Your task to perform on an android device: Open the Play Movies app and select the watchlist tab. Image 0: 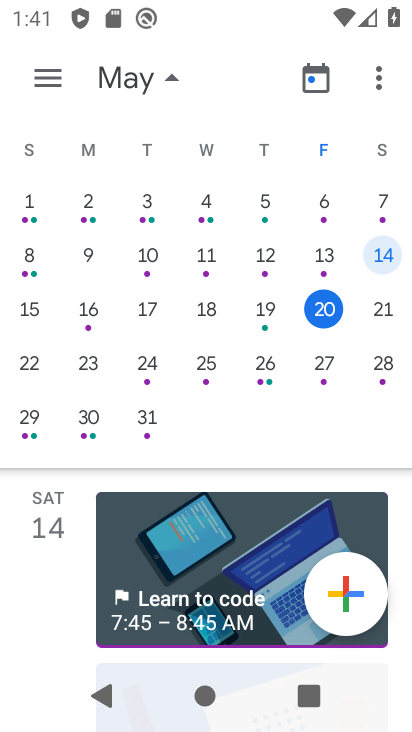
Step 0: press home button
Your task to perform on an android device: Open the Play Movies app and select the watchlist tab. Image 1: 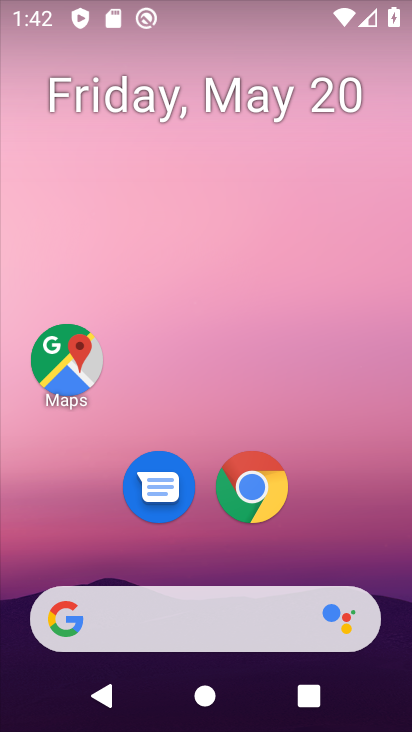
Step 1: drag from (364, 542) to (334, 128)
Your task to perform on an android device: Open the Play Movies app and select the watchlist tab. Image 2: 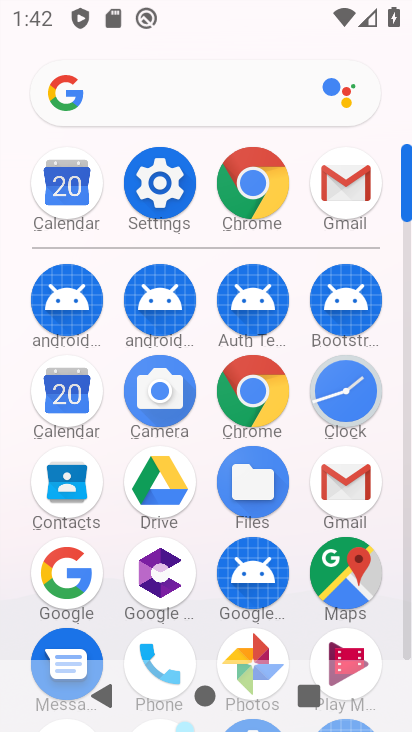
Step 2: drag from (404, 606) to (378, 341)
Your task to perform on an android device: Open the Play Movies app and select the watchlist tab. Image 3: 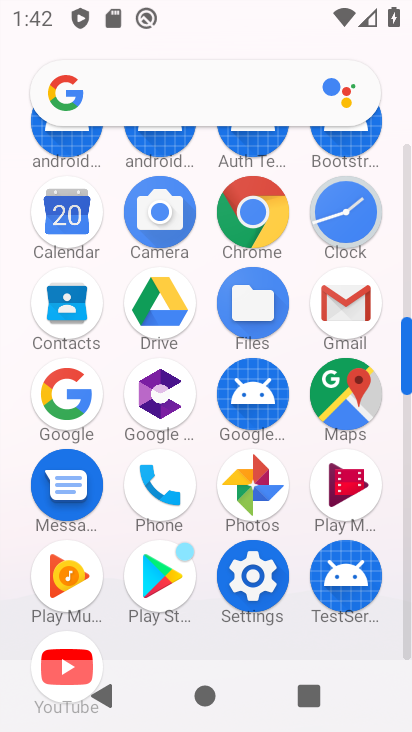
Step 3: click (152, 504)
Your task to perform on an android device: Open the Play Movies app and select the watchlist tab. Image 4: 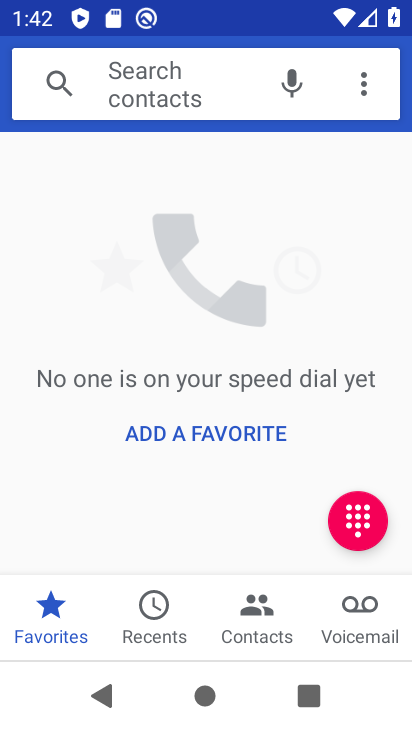
Step 4: click (348, 612)
Your task to perform on an android device: Open the Play Movies app and select the watchlist tab. Image 5: 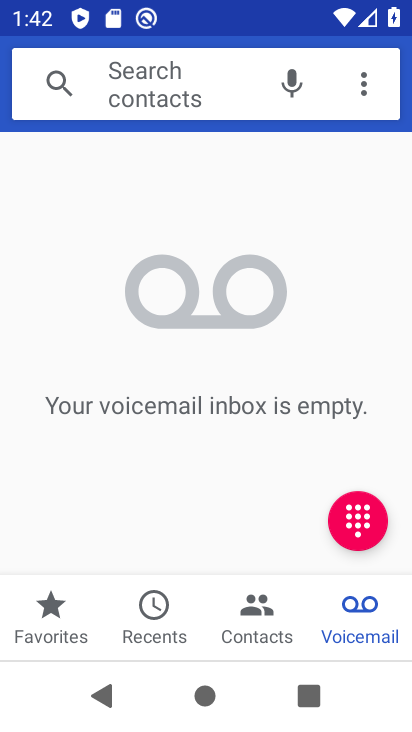
Step 5: task complete